Your task to perform on an android device: toggle show notifications on the lock screen Image 0: 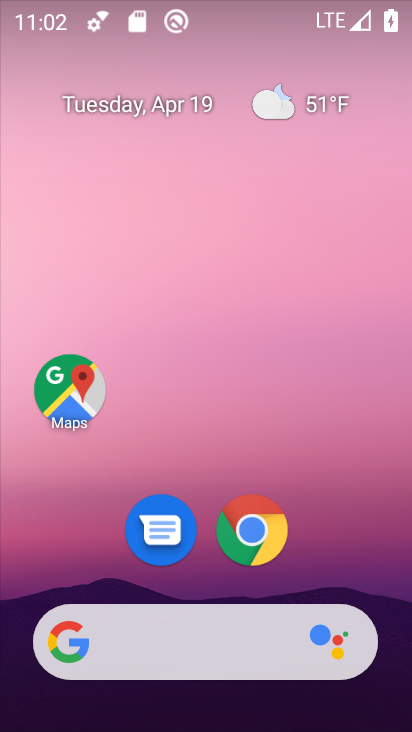
Step 0: click (304, 24)
Your task to perform on an android device: toggle show notifications on the lock screen Image 1: 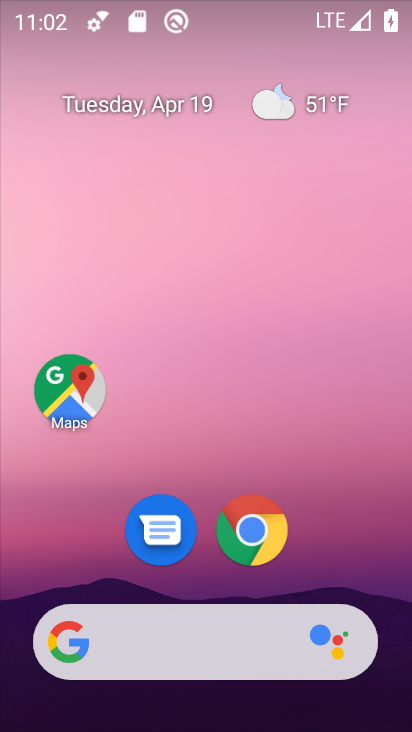
Step 1: drag from (177, 628) to (316, 36)
Your task to perform on an android device: toggle show notifications on the lock screen Image 2: 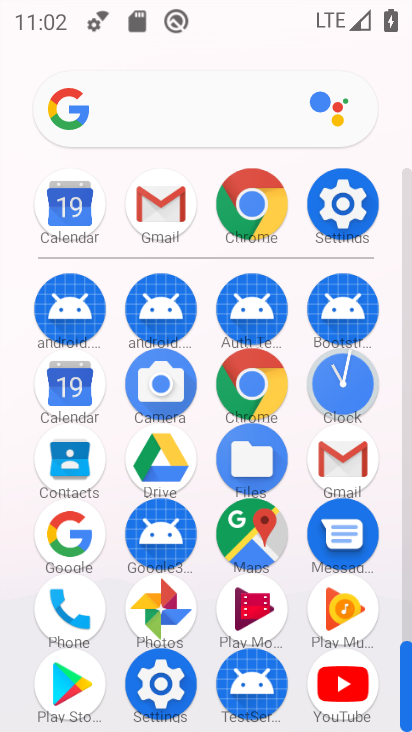
Step 2: click (346, 216)
Your task to perform on an android device: toggle show notifications on the lock screen Image 3: 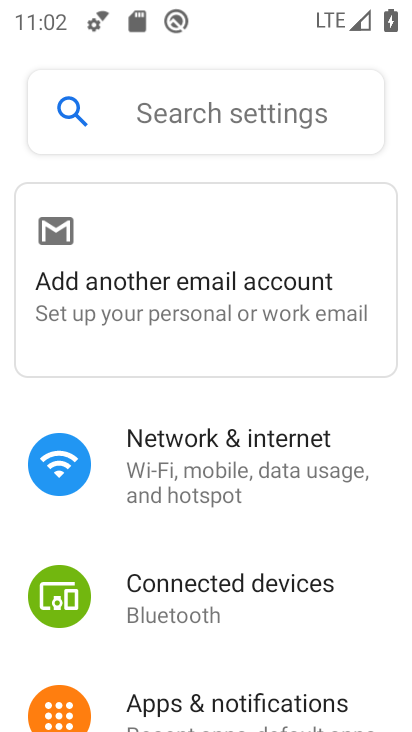
Step 3: drag from (255, 467) to (318, 188)
Your task to perform on an android device: toggle show notifications on the lock screen Image 4: 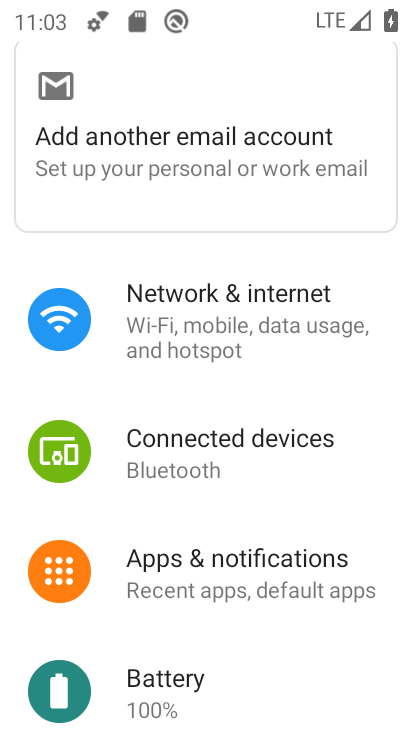
Step 4: click (261, 568)
Your task to perform on an android device: toggle show notifications on the lock screen Image 5: 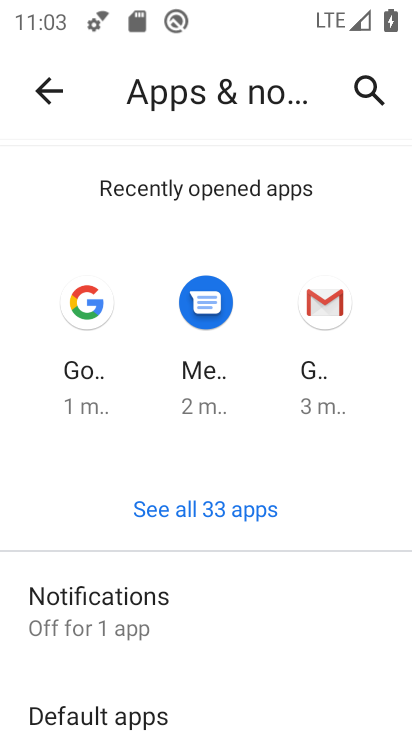
Step 5: click (86, 607)
Your task to perform on an android device: toggle show notifications on the lock screen Image 6: 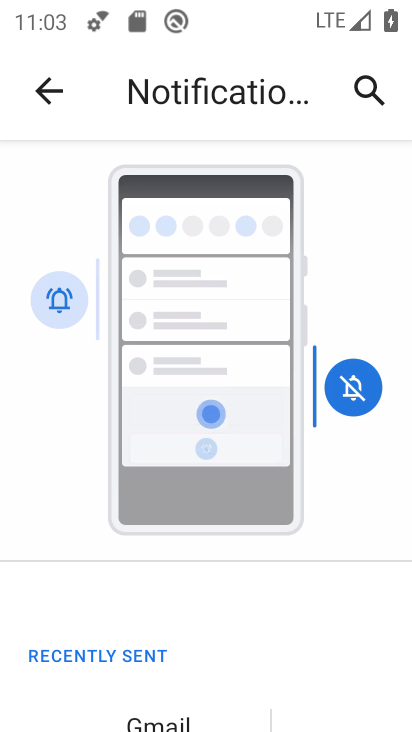
Step 6: drag from (194, 613) to (353, 253)
Your task to perform on an android device: toggle show notifications on the lock screen Image 7: 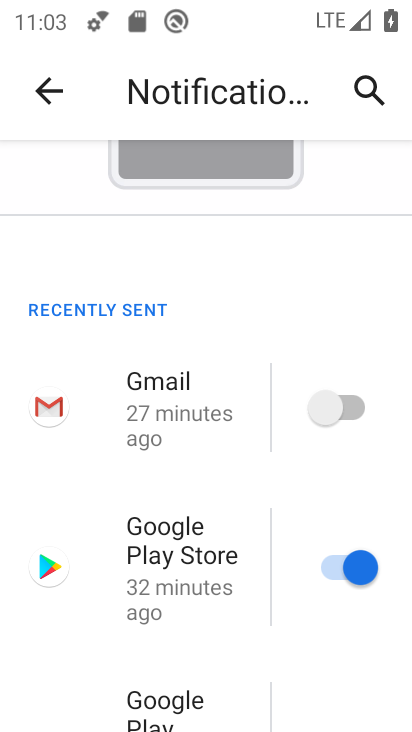
Step 7: drag from (239, 608) to (397, 104)
Your task to perform on an android device: toggle show notifications on the lock screen Image 8: 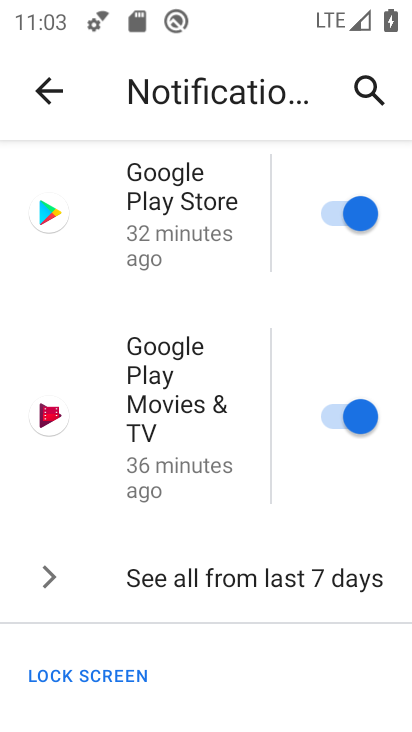
Step 8: drag from (161, 631) to (372, 158)
Your task to perform on an android device: toggle show notifications on the lock screen Image 9: 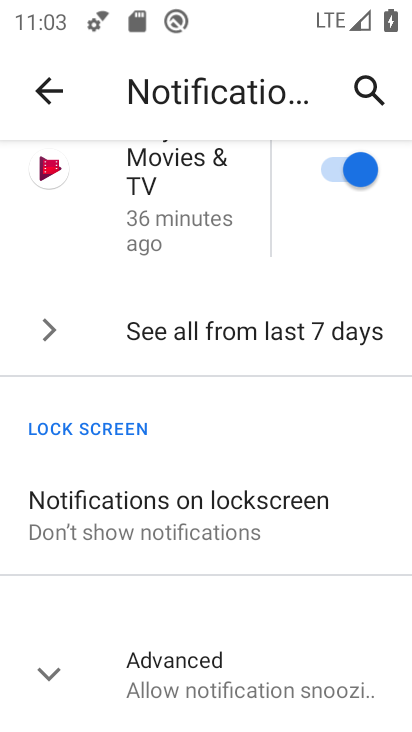
Step 9: click (171, 501)
Your task to perform on an android device: toggle show notifications on the lock screen Image 10: 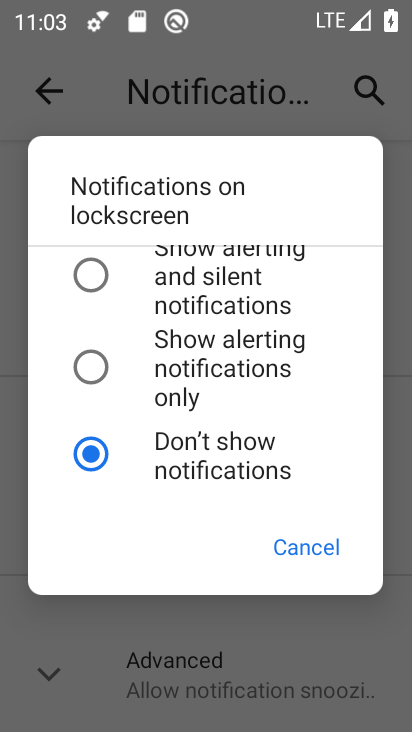
Step 10: drag from (127, 287) to (114, 463)
Your task to perform on an android device: toggle show notifications on the lock screen Image 11: 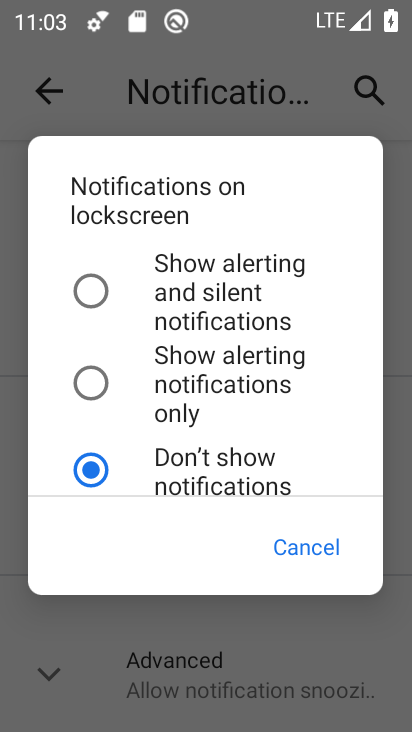
Step 11: click (93, 289)
Your task to perform on an android device: toggle show notifications on the lock screen Image 12: 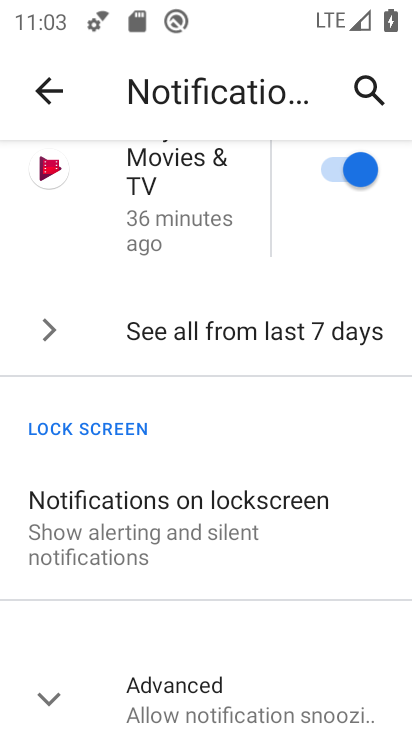
Step 12: task complete